Your task to perform on an android device: Open my contact list Image 0: 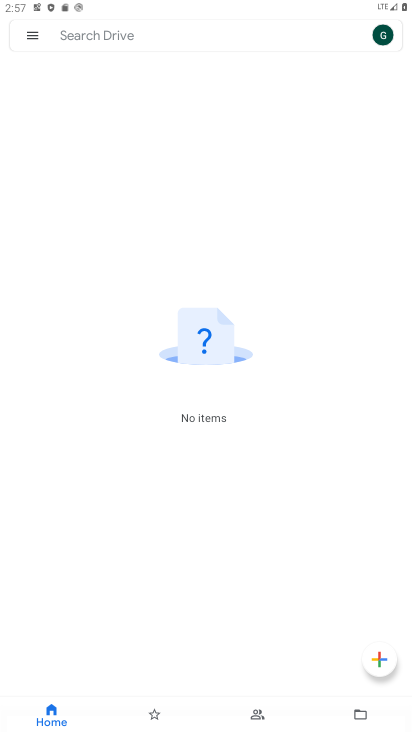
Step 0: press home button
Your task to perform on an android device: Open my contact list Image 1: 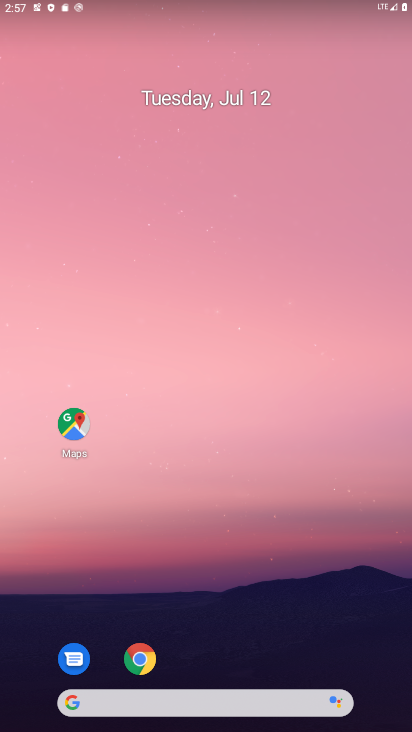
Step 1: drag from (217, 731) to (217, 188)
Your task to perform on an android device: Open my contact list Image 2: 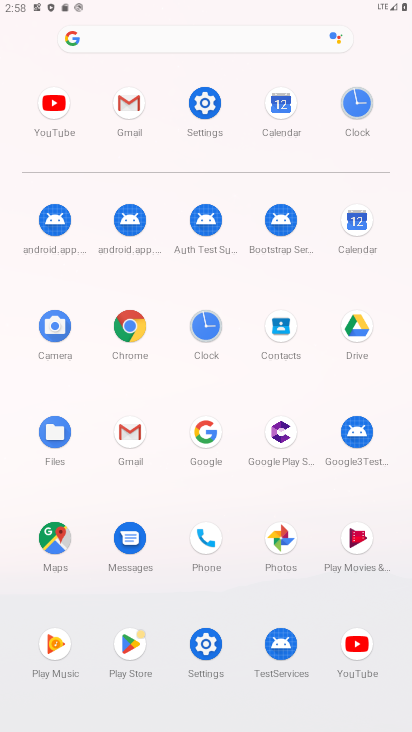
Step 2: click (284, 325)
Your task to perform on an android device: Open my contact list Image 3: 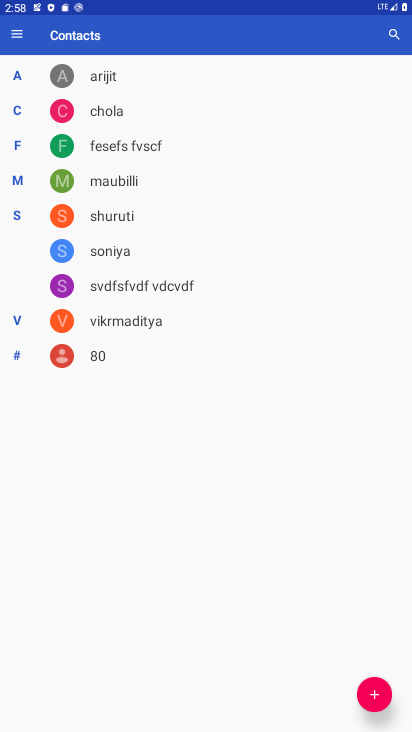
Step 3: task complete